Your task to perform on an android device: Search for "usb-a to usb-b" on newegg.com, select the first entry, and add it to the cart. Image 0: 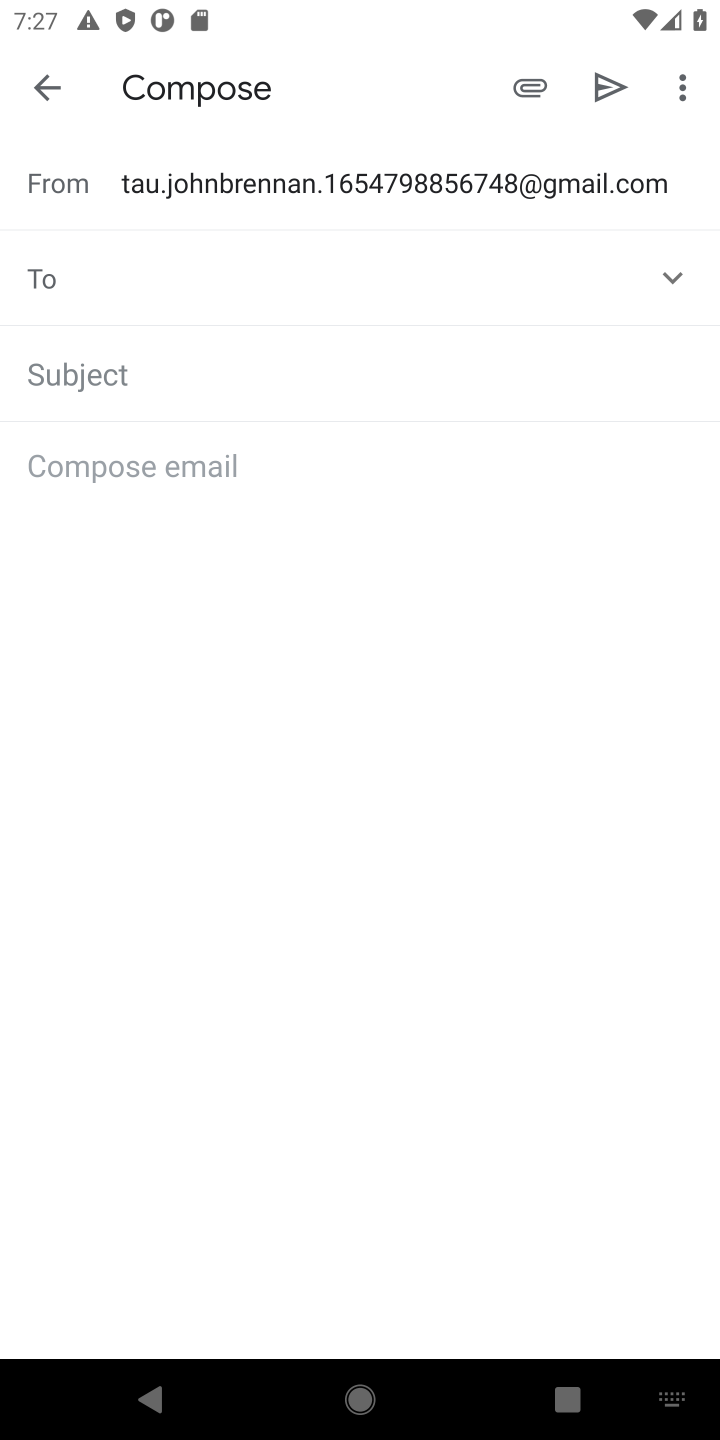
Step 0: press home button
Your task to perform on an android device: Search for "usb-a to usb-b" on newegg.com, select the first entry, and add it to the cart. Image 1: 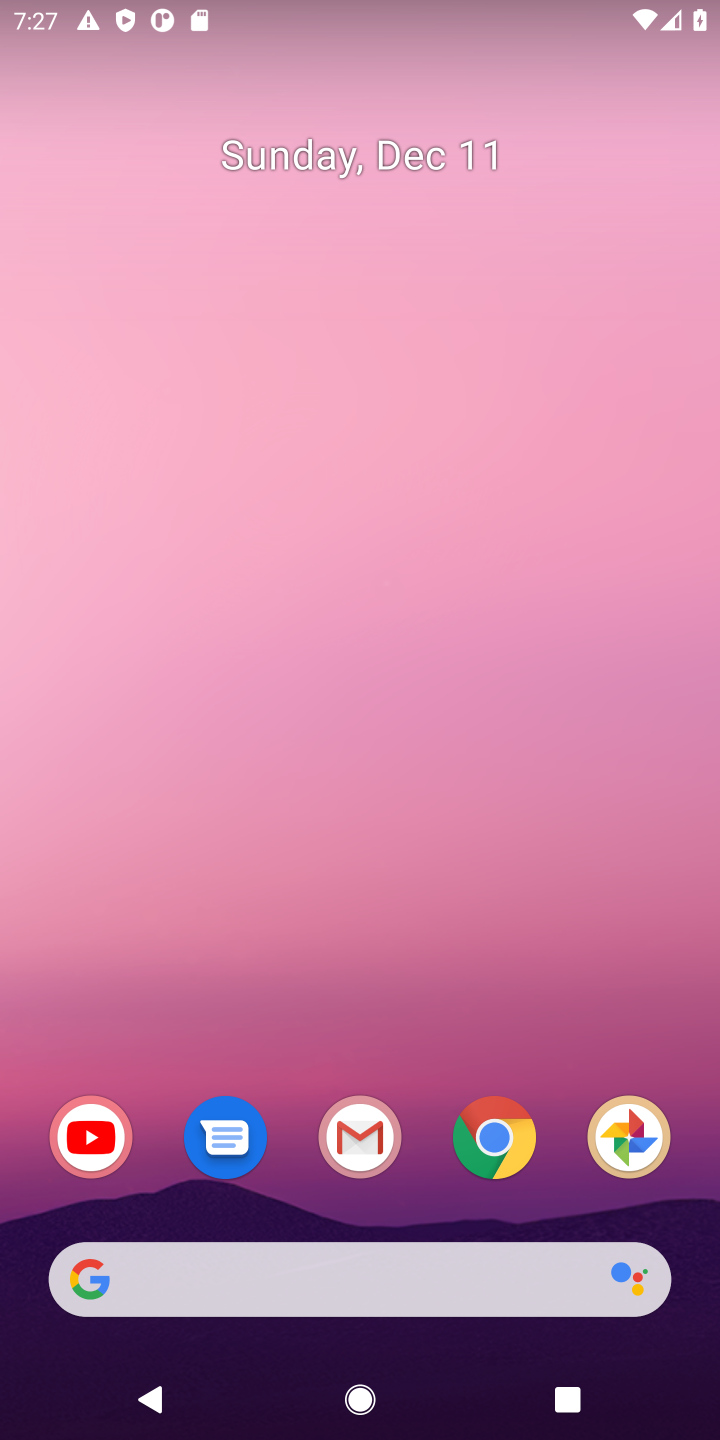
Step 1: click (497, 1154)
Your task to perform on an android device: Search for "usb-a to usb-b" on newegg.com, select the first entry, and add it to the cart. Image 2: 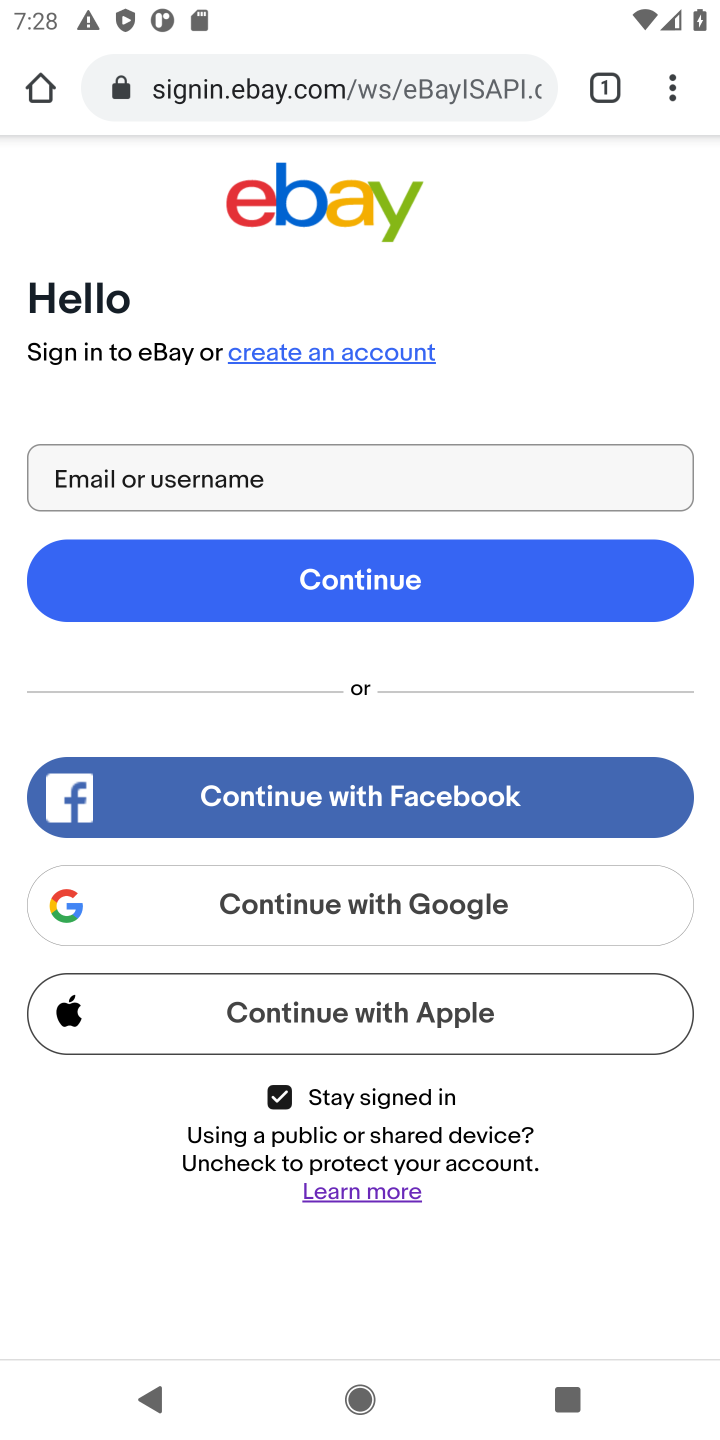
Step 2: click (324, 74)
Your task to perform on an android device: Search for "usb-a to usb-b" on newegg.com, select the first entry, and add it to the cart. Image 3: 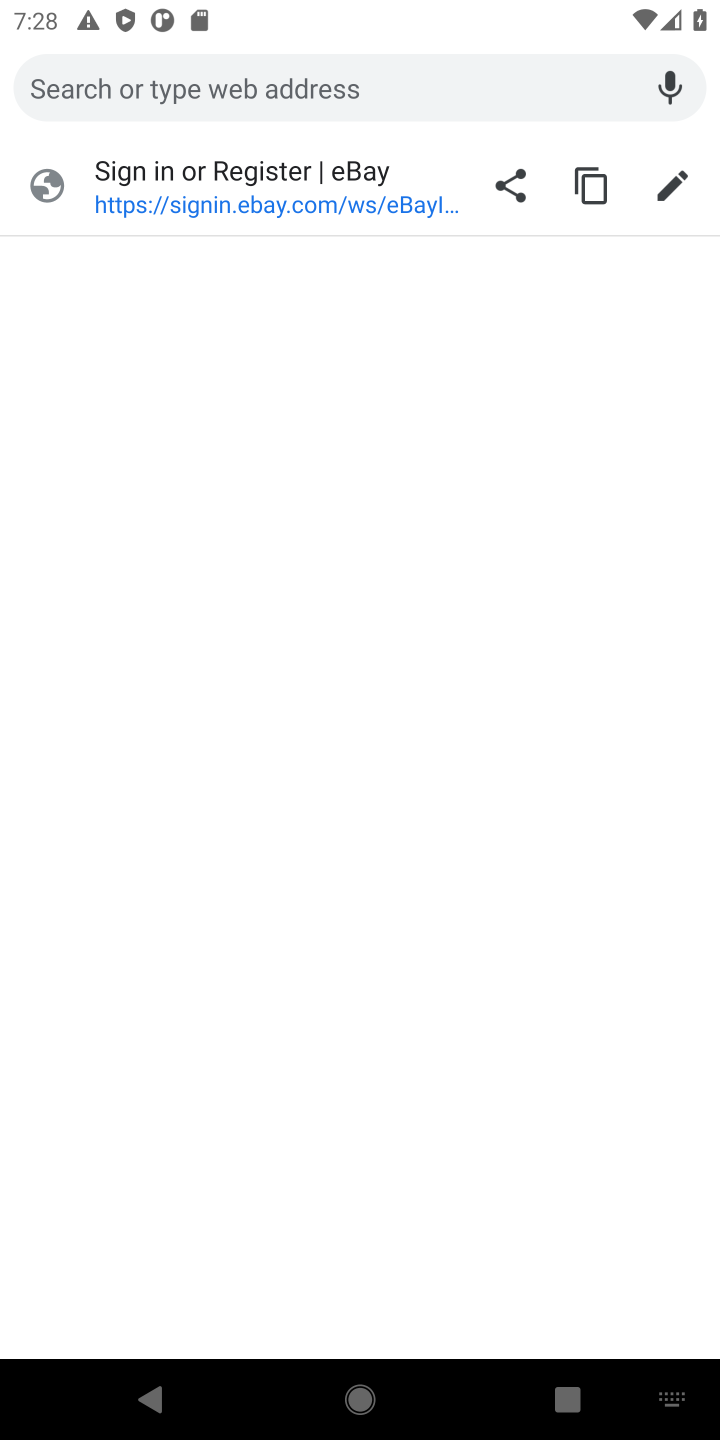
Step 3: type "newegg"
Your task to perform on an android device: Search for "usb-a to usb-b" on newegg.com, select the first entry, and add it to the cart. Image 4: 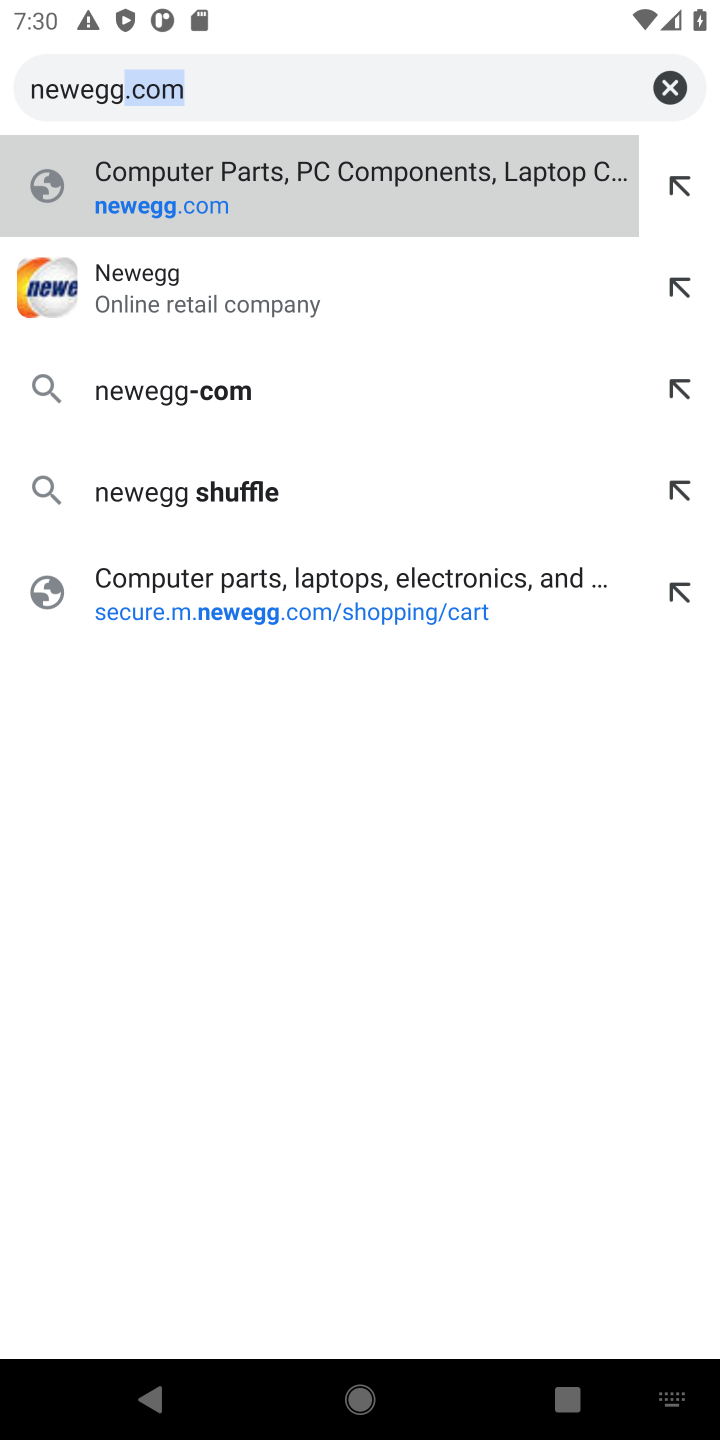
Step 4: click (285, 184)
Your task to perform on an android device: Search for "usb-a to usb-b" on newegg.com, select the first entry, and add it to the cart. Image 5: 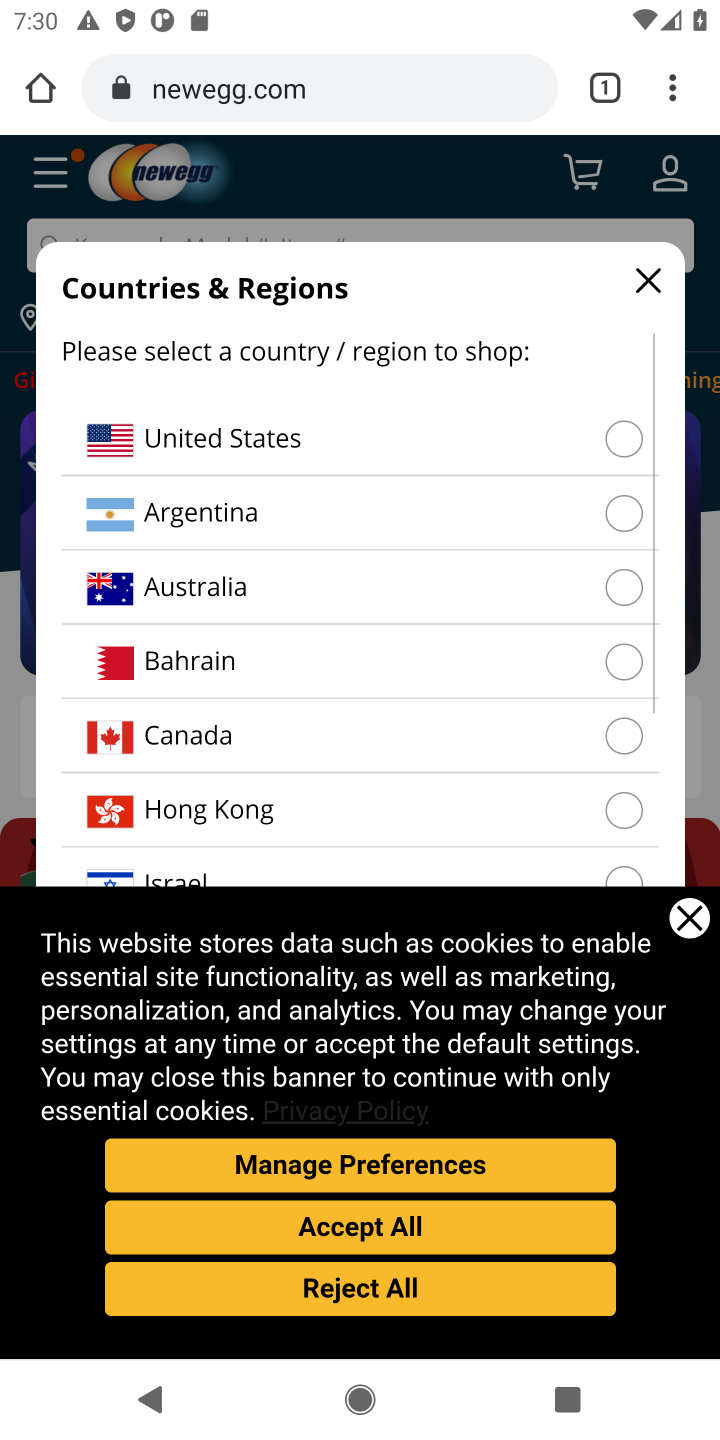
Step 5: click (690, 925)
Your task to perform on an android device: Search for "usb-a to usb-b" on newegg.com, select the first entry, and add it to the cart. Image 6: 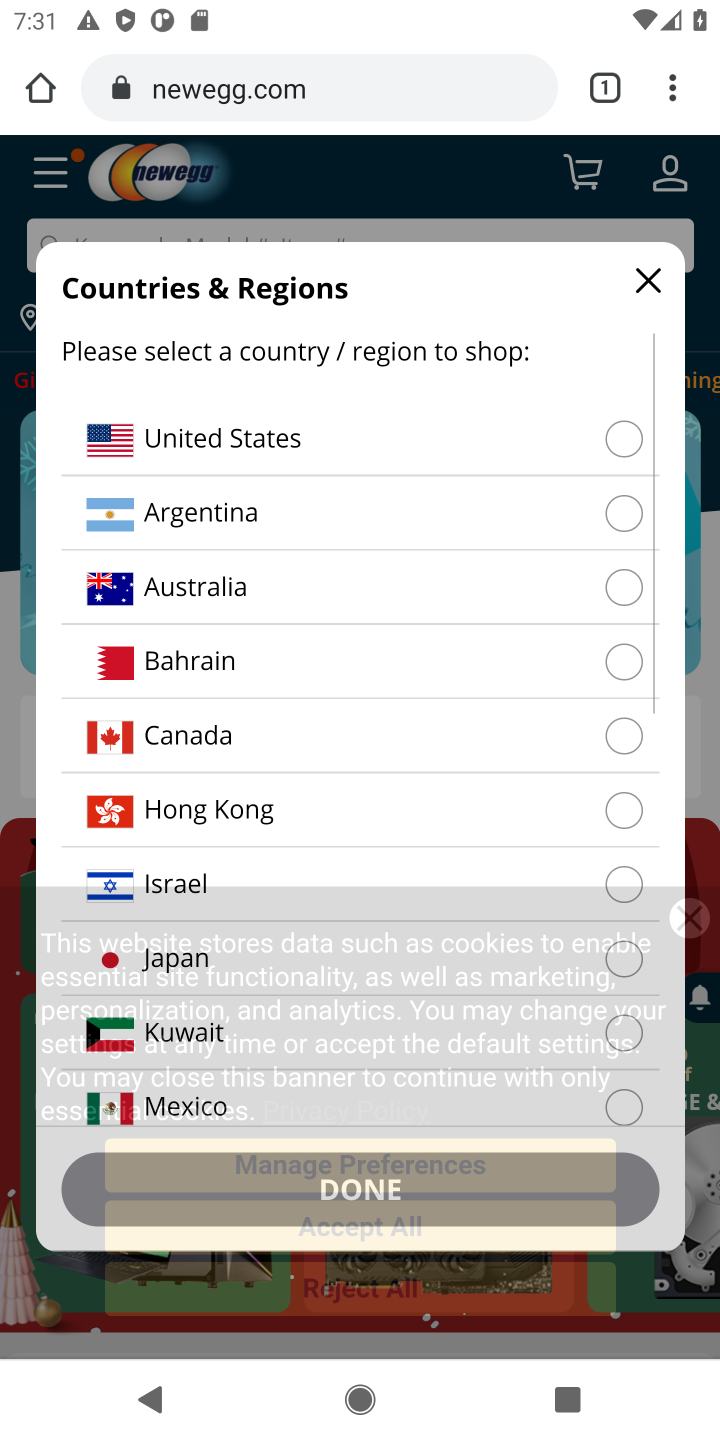
Step 6: click (404, 438)
Your task to perform on an android device: Search for "usb-a to usb-b" on newegg.com, select the first entry, and add it to the cart. Image 7: 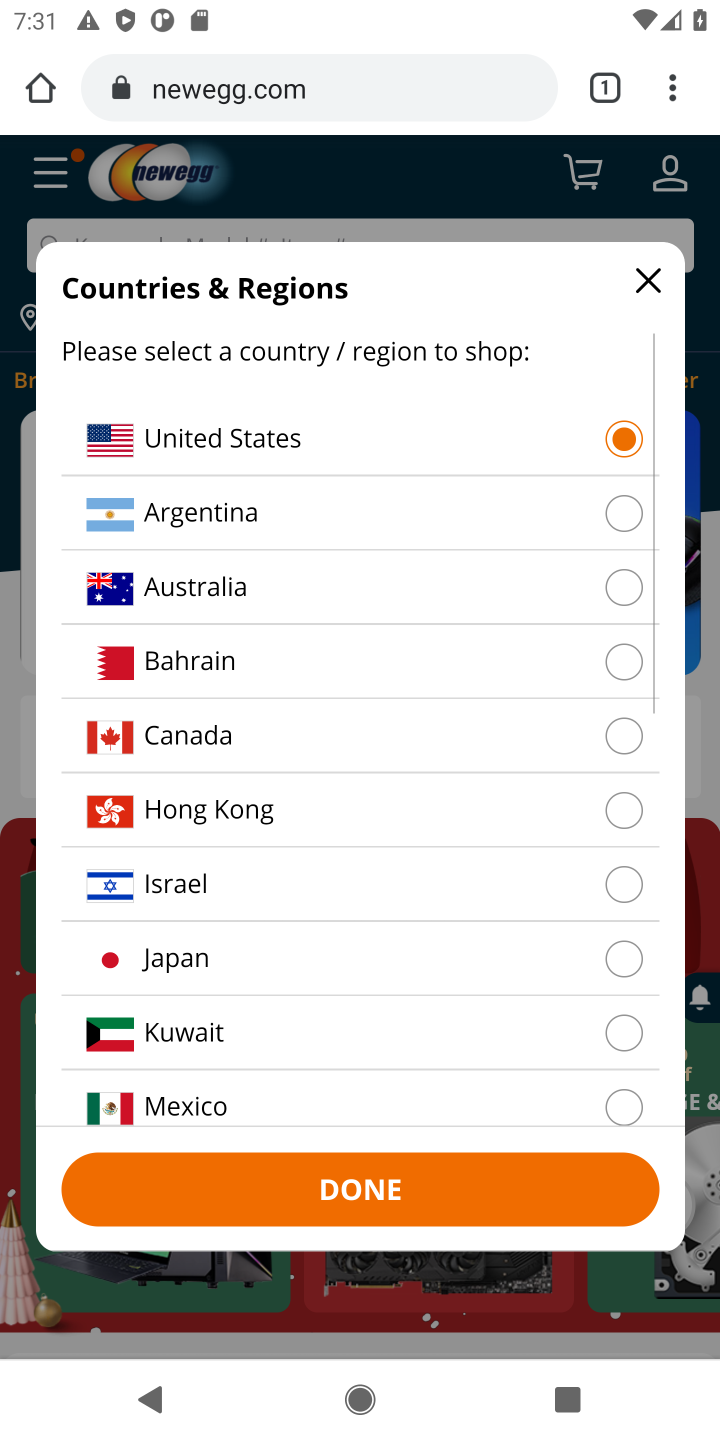
Step 7: click (453, 1169)
Your task to perform on an android device: Search for "usb-a to usb-b" on newegg.com, select the first entry, and add it to the cart. Image 8: 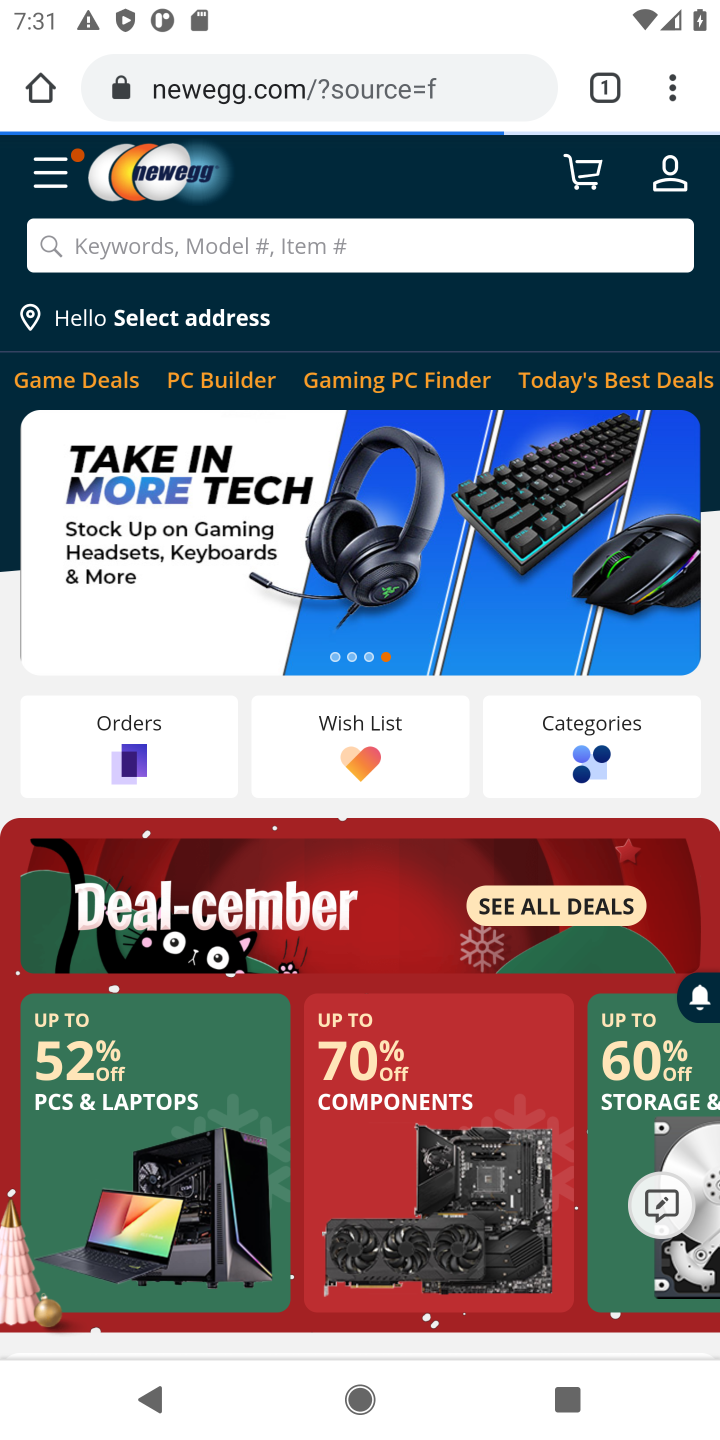
Step 8: click (531, 259)
Your task to perform on an android device: Search for "usb-a to usb-b" on newegg.com, select the first entry, and add it to the cart. Image 9: 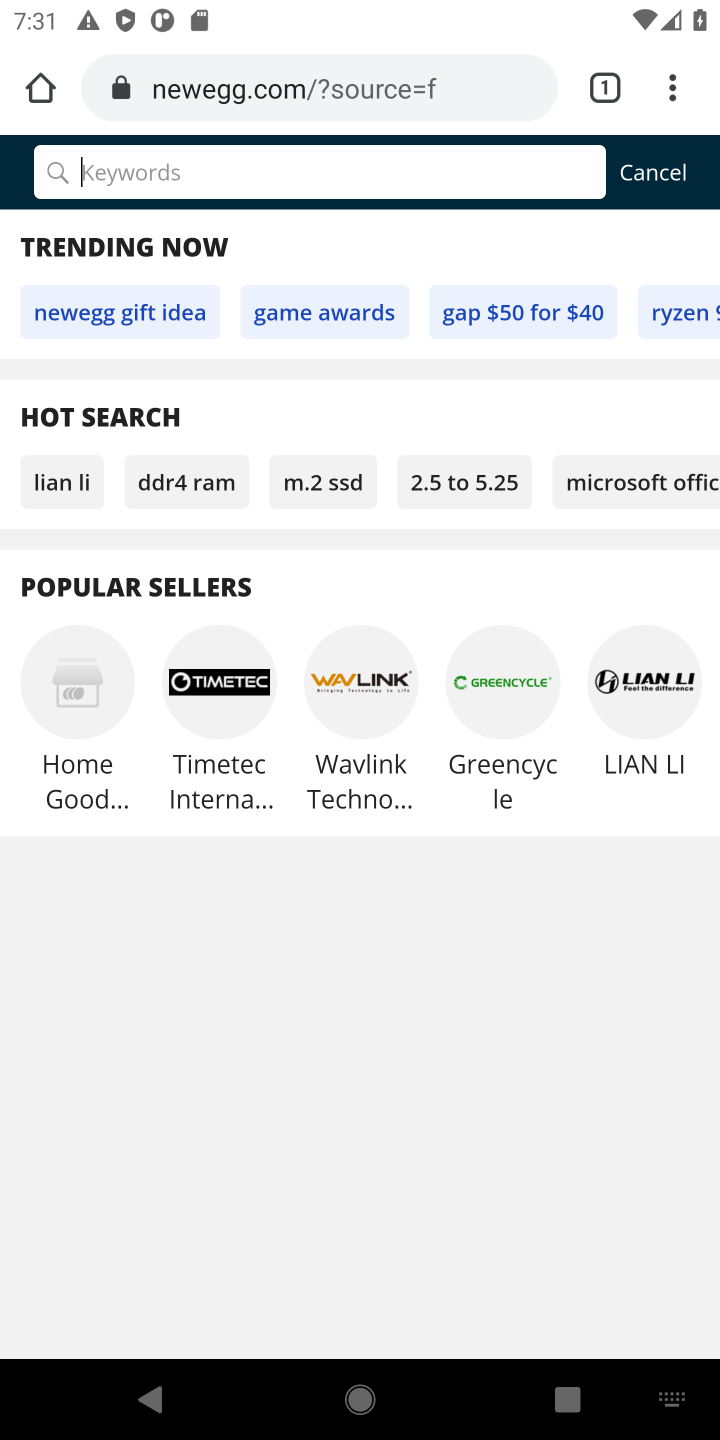
Step 9: type "usb-a to usb-b"
Your task to perform on an android device: Search for "usb-a to usb-b" on newegg.com, select the first entry, and add it to the cart. Image 10: 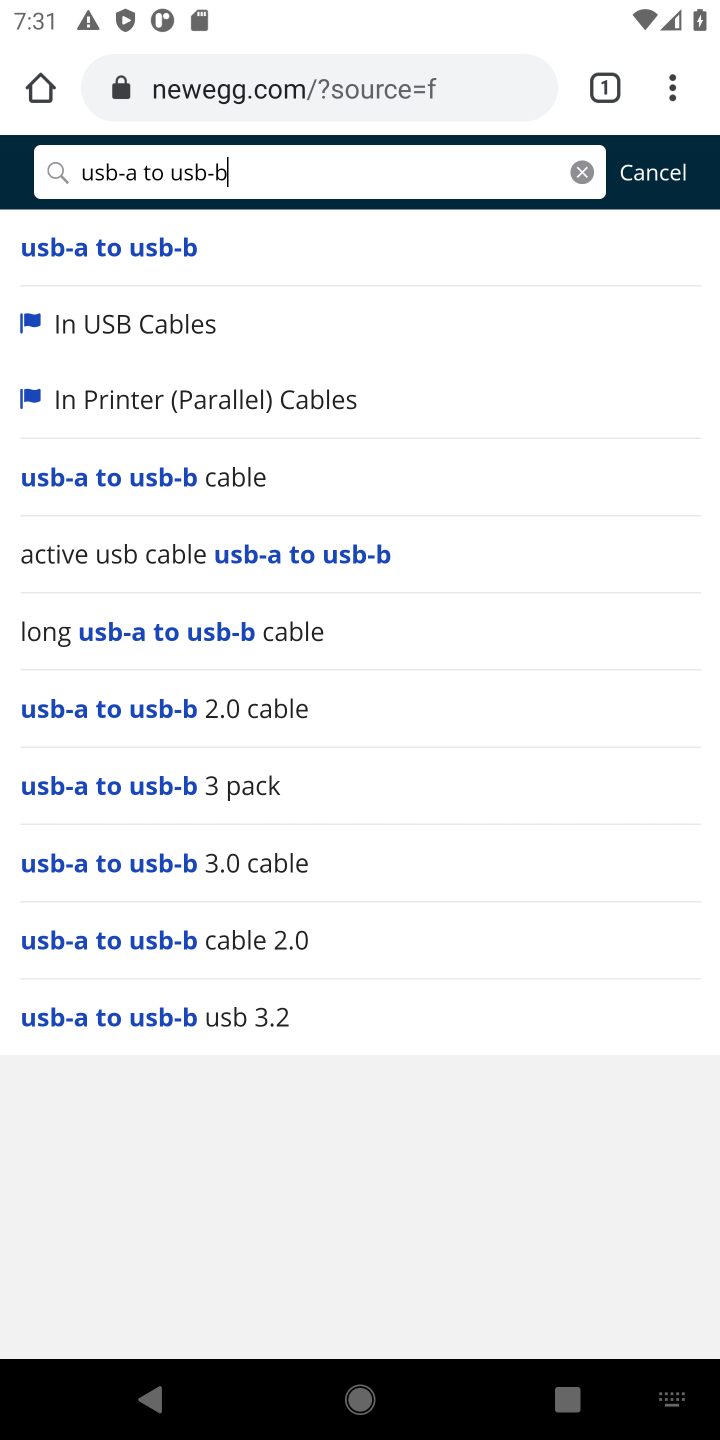
Step 10: click (204, 249)
Your task to perform on an android device: Search for "usb-a to usb-b" on newegg.com, select the first entry, and add it to the cart. Image 11: 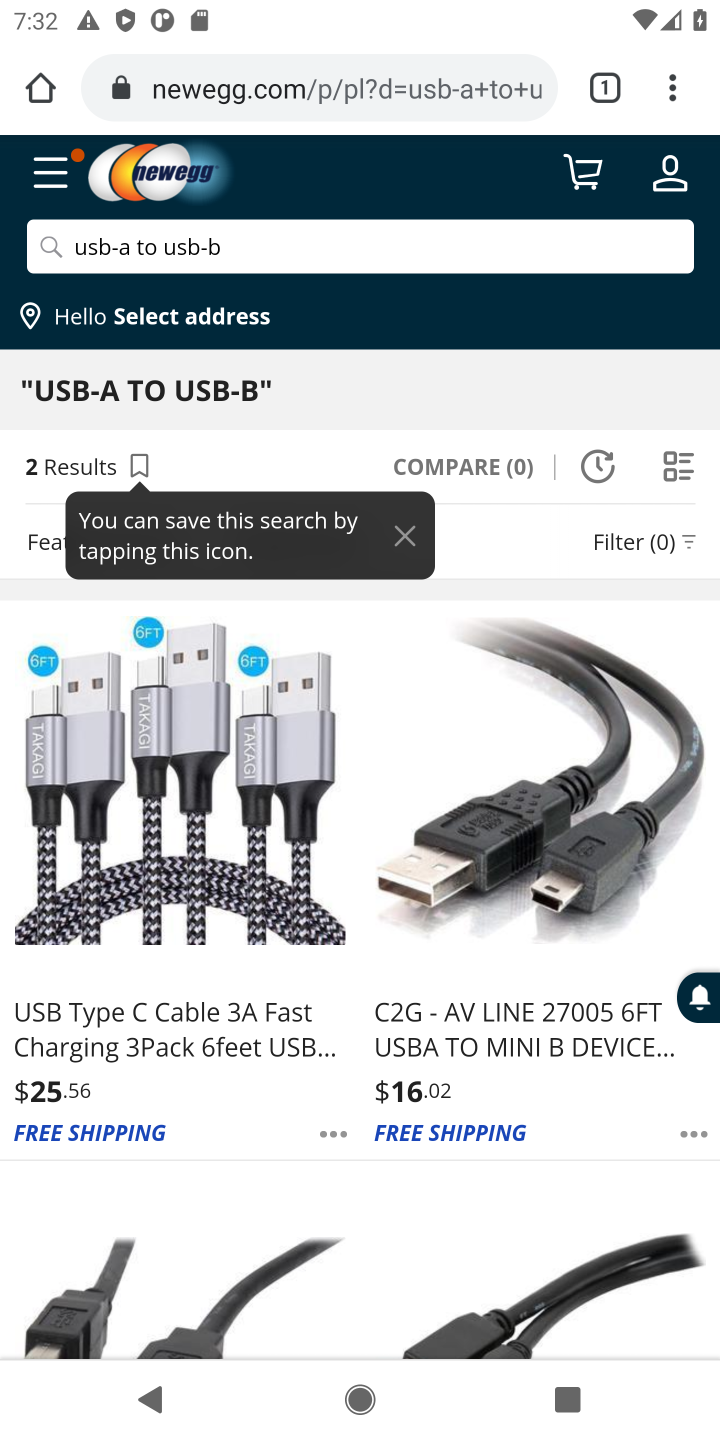
Step 11: click (183, 819)
Your task to perform on an android device: Search for "usb-a to usb-b" on newegg.com, select the first entry, and add it to the cart. Image 12: 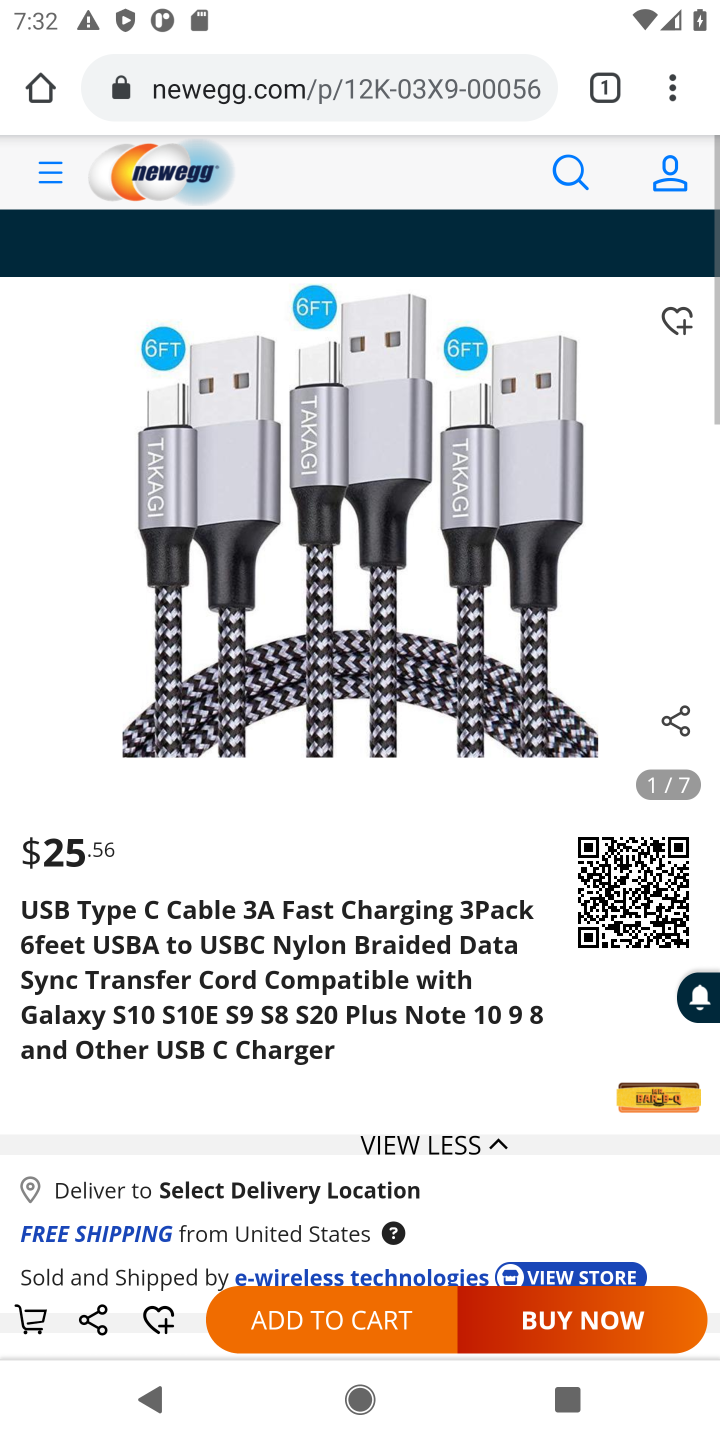
Step 12: click (321, 1330)
Your task to perform on an android device: Search for "usb-a to usb-b" on newegg.com, select the first entry, and add it to the cart. Image 13: 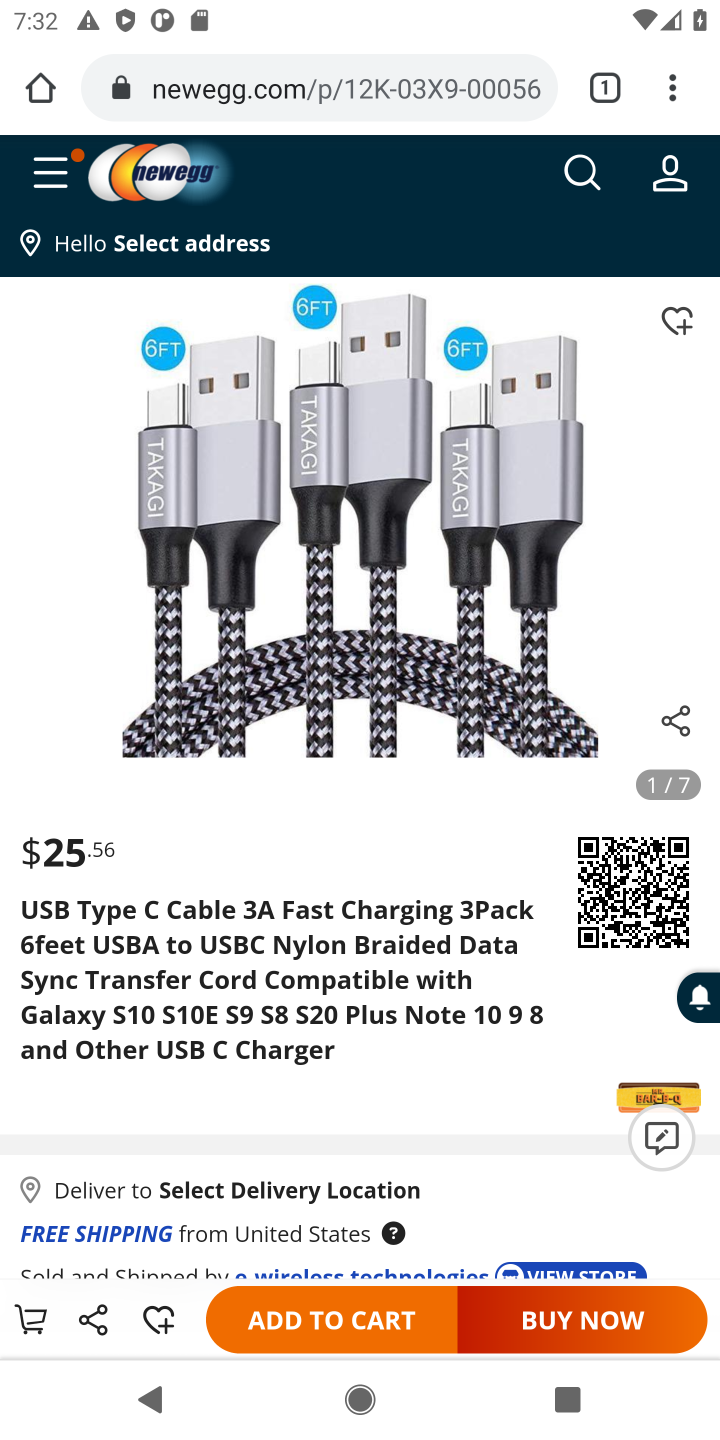
Step 13: click (321, 1330)
Your task to perform on an android device: Search for "usb-a to usb-b" on newegg.com, select the first entry, and add it to the cart. Image 14: 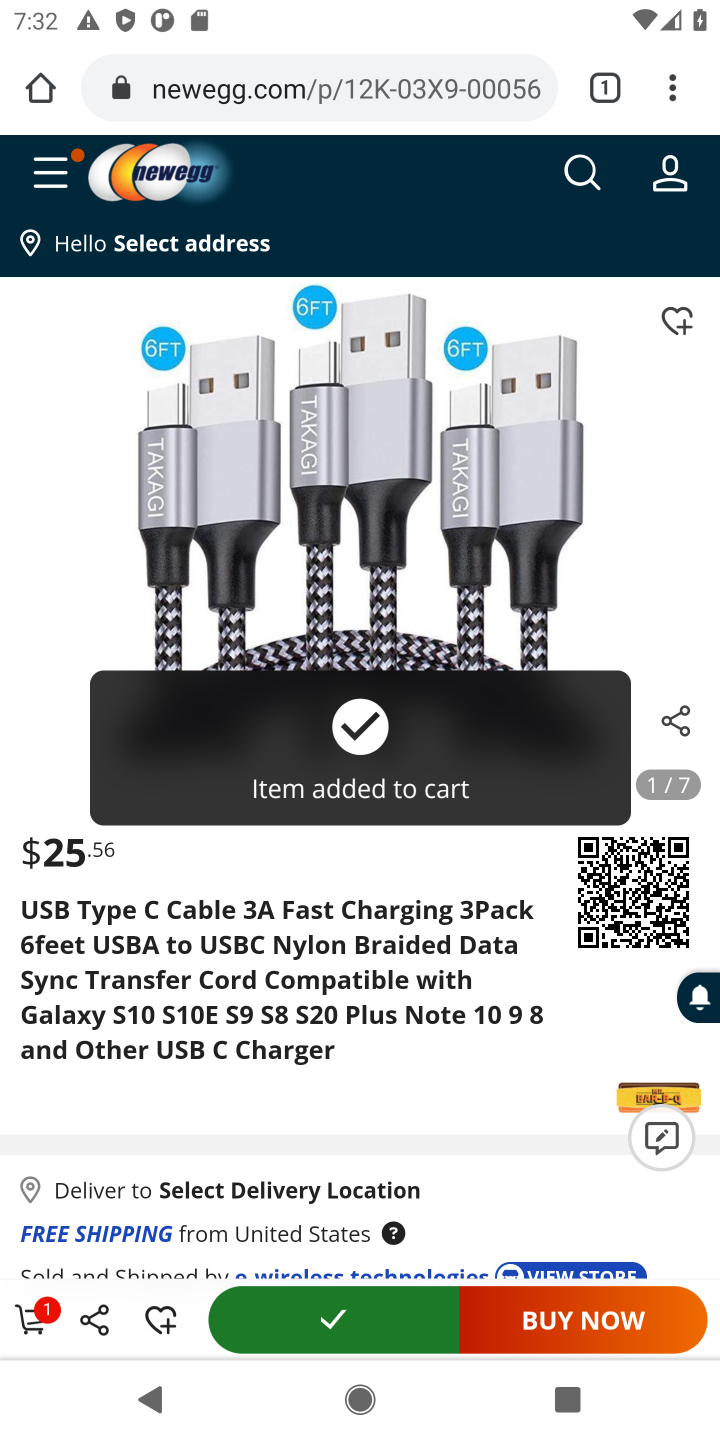
Step 14: task complete